Your task to perform on an android device: Go to eBay Image 0: 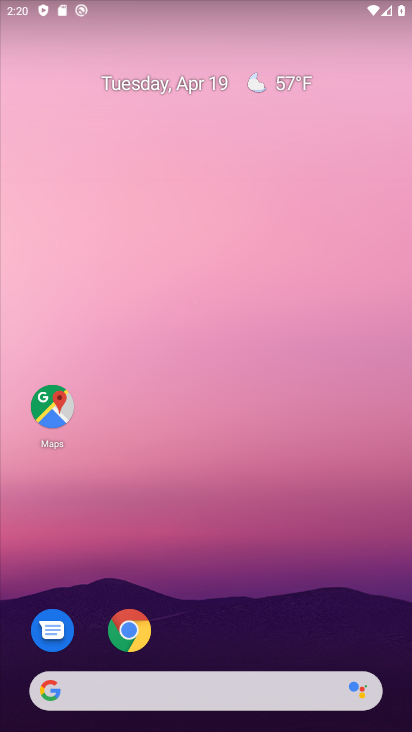
Step 0: click (134, 632)
Your task to perform on an android device: Go to eBay Image 1: 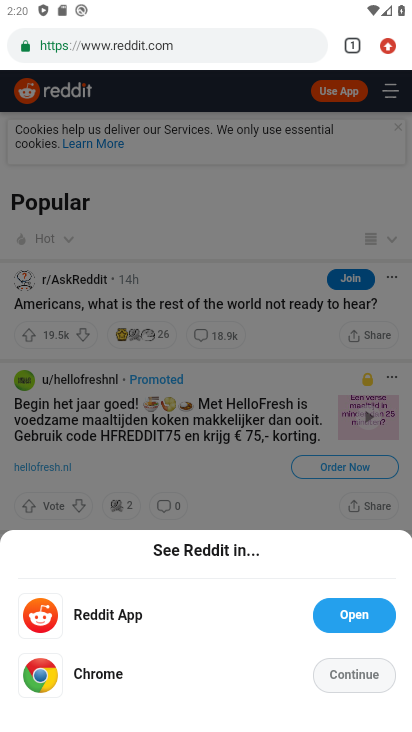
Step 1: click (354, 45)
Your task to perform on an android device: Go to eBay Image 2: 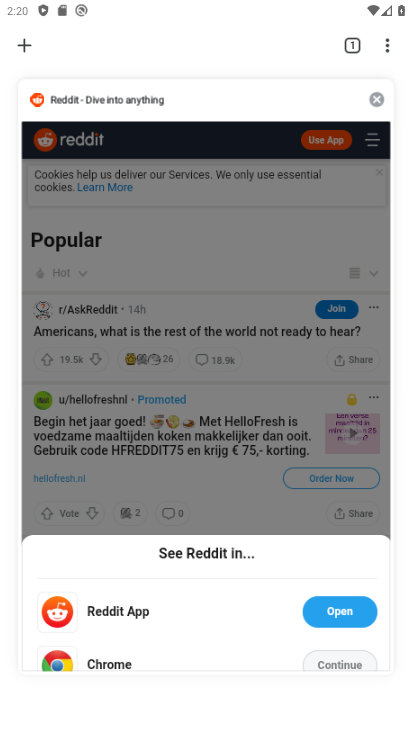
Step 2: click (26, 49)
Your task to perform on an android device: Go to eBay Image 3: 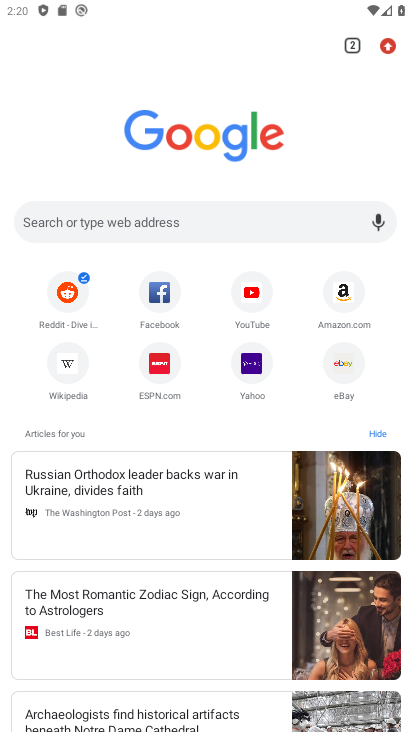
Step 3: click (335, 366)
Your task to perform on an android device: Go to eBay Image 4: 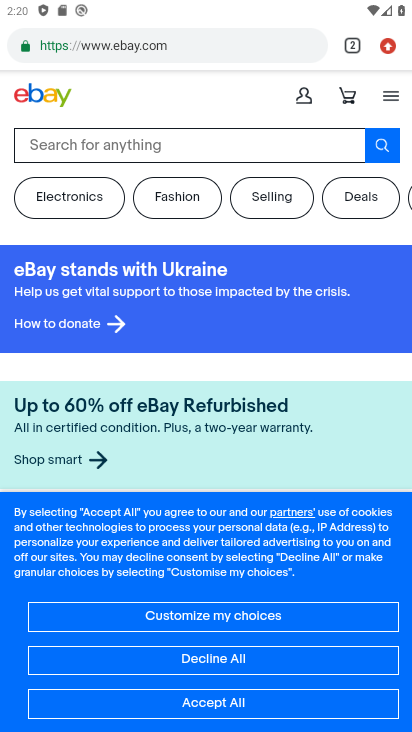
Step 4: task complete